Your task to perform on an android device: Clear all items from cart on amazon.com. Add "logitech g pro" to the cart on amazon.com Image 0: 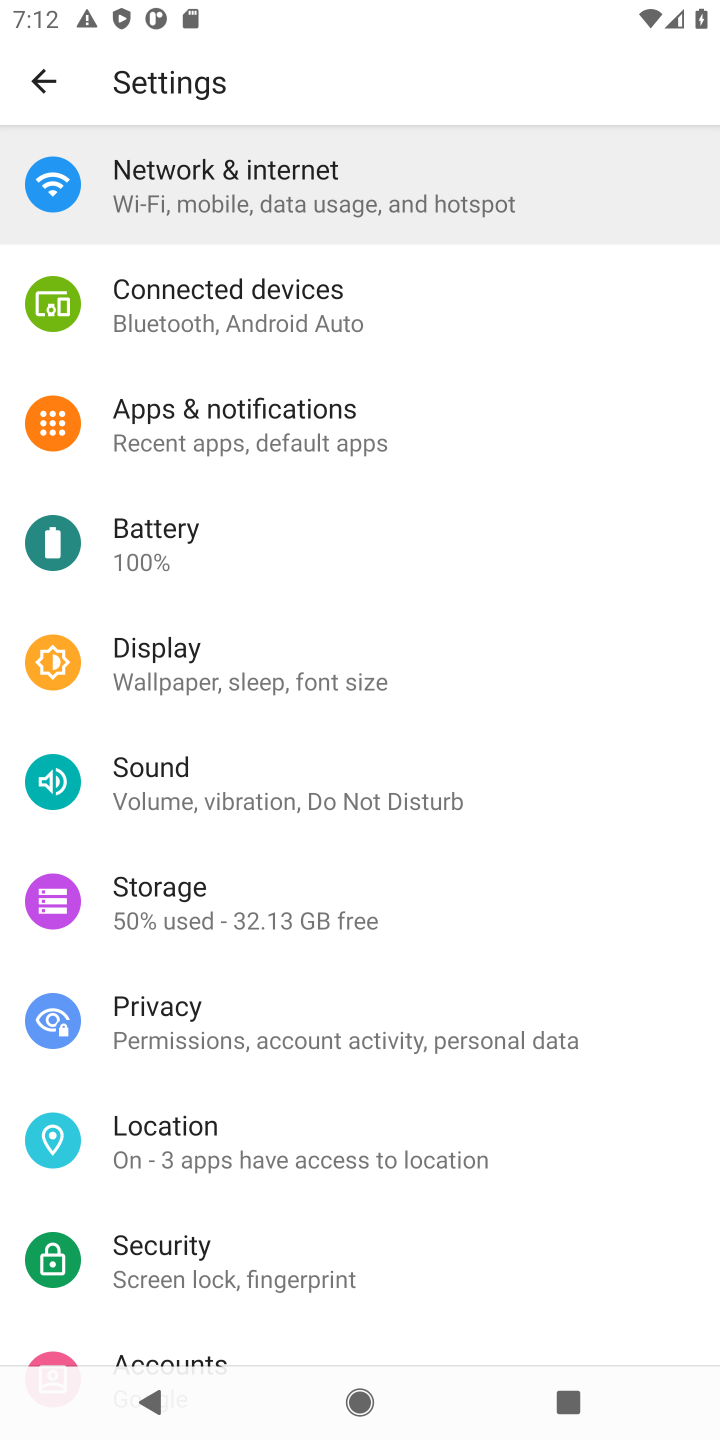
Step 0: press home button
Your task to perform on an android device: Clear all items from cart on amazon.com. Add "logitech g pro" to the cart on amazon.com Image 1: 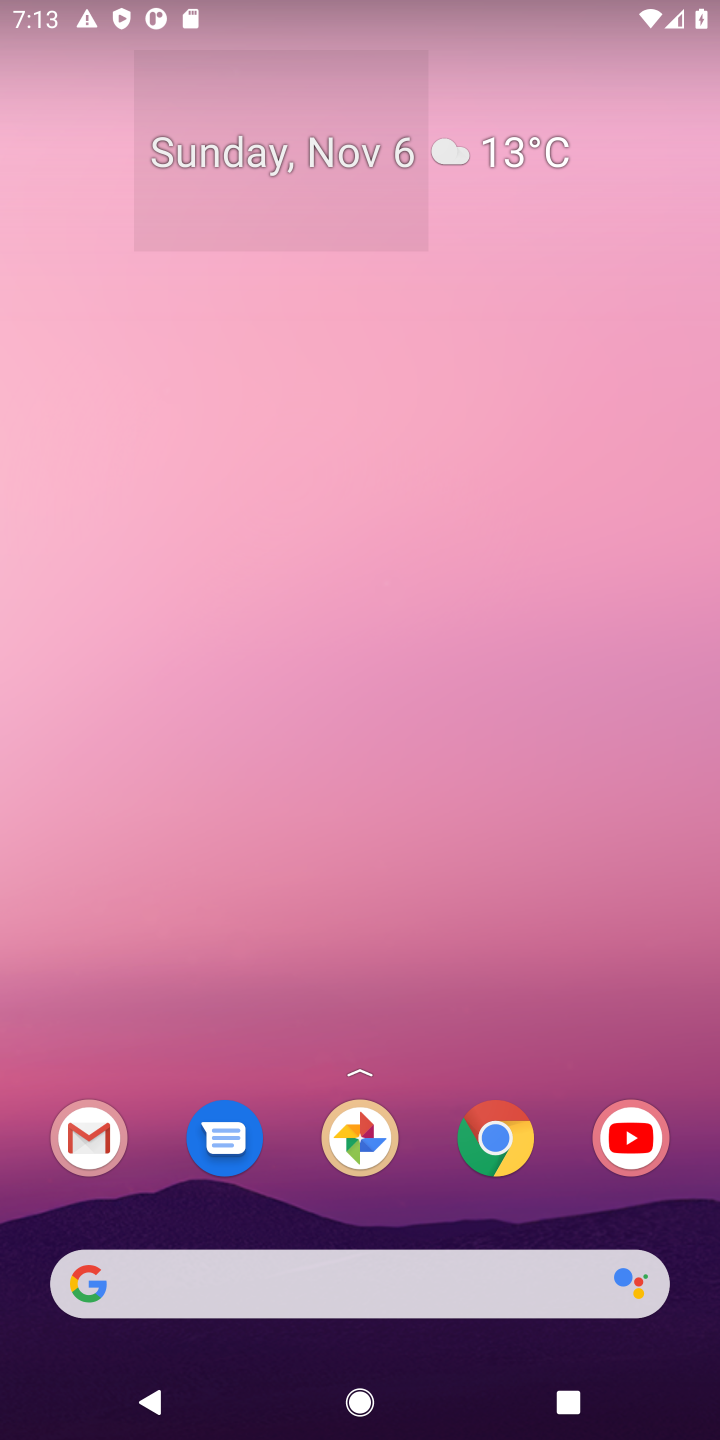
Step 1: click (492, 1135)
Your task to perform on an android device: Clear all items from cart on amazon.com. Add "logitech g pro" to the cart on amazon.com Image 2: 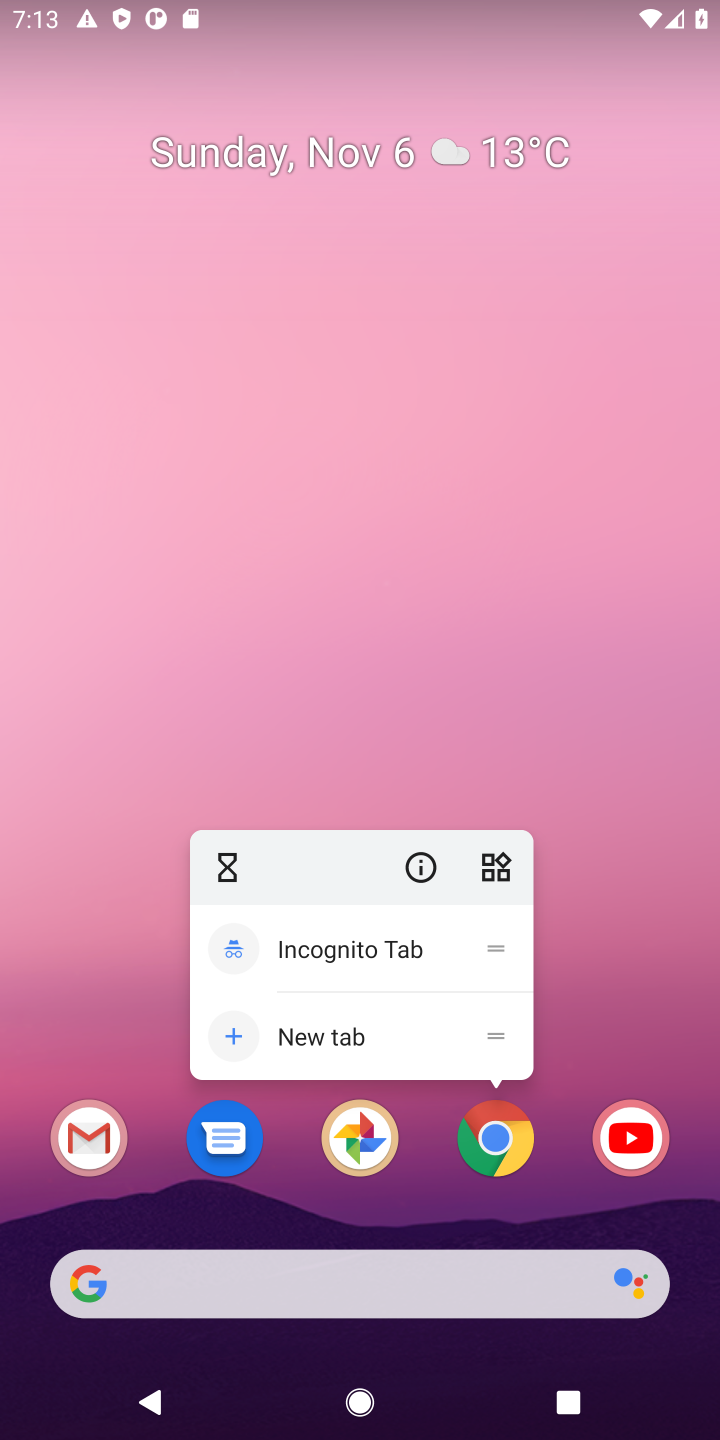
Step 2: click (492, 1144)
Your task to perform on an android device: Clear all items from cart on amazon.com. Add "logitech g pro" to the cart on amazon.com Image 3: 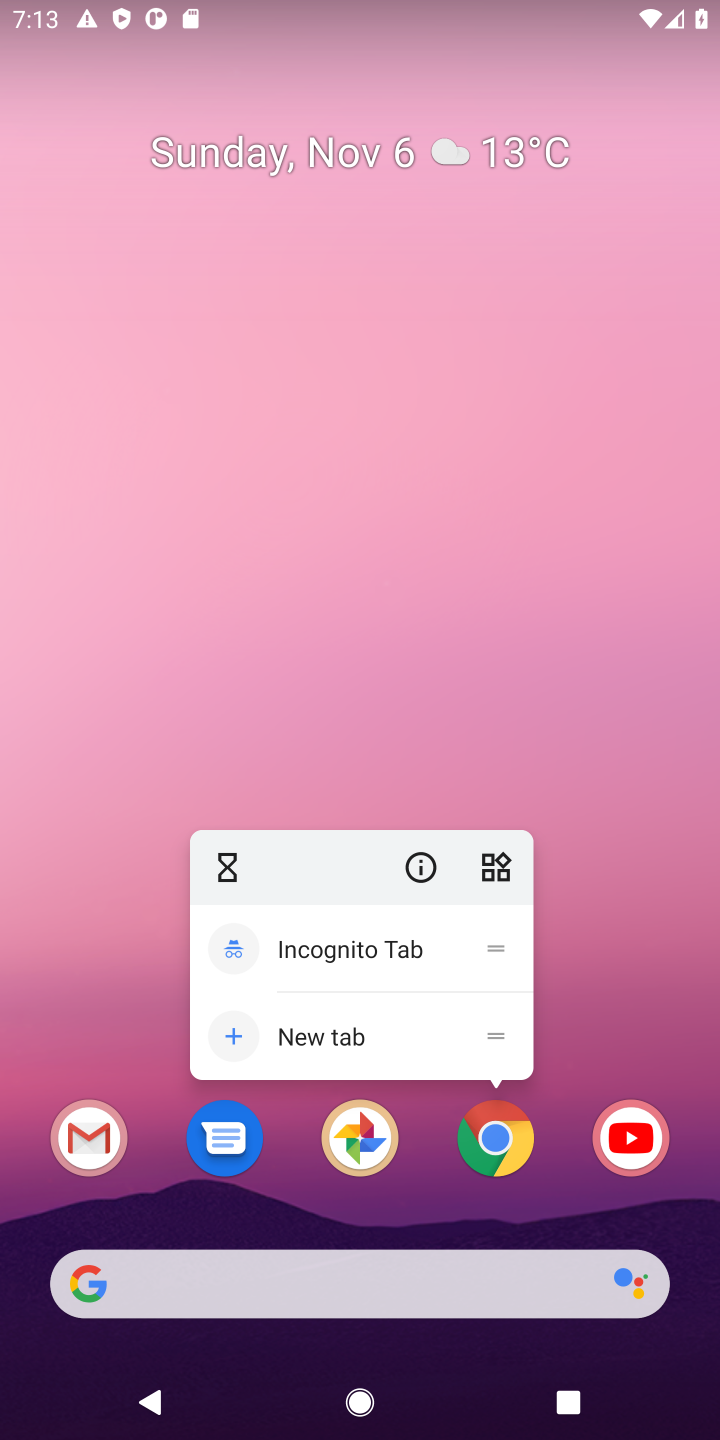
Step 3: click (517, 1142)
Your task to perform on an android device: Clear all items from cart on amazon.com. Add "logitech g pro" to the cart on amazon.com Image 4: 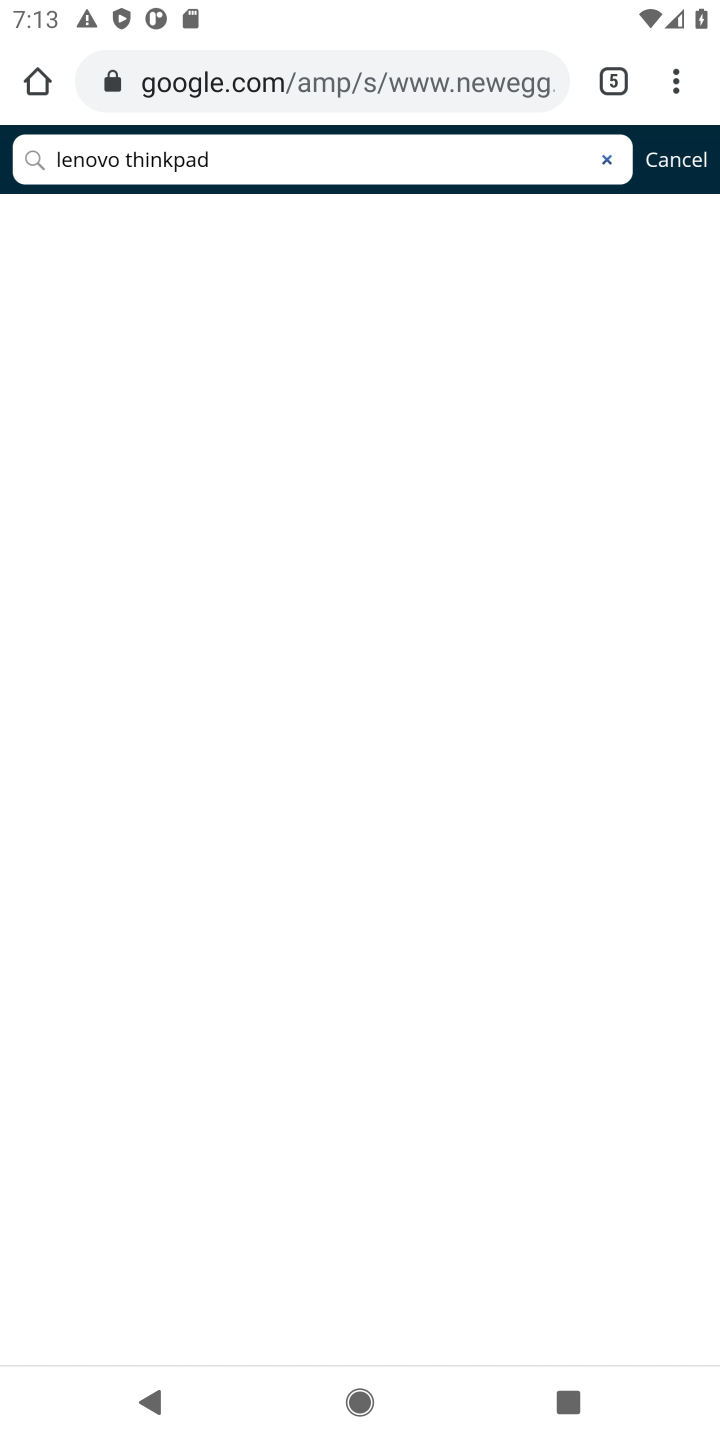
Step 4: click (608, 90)
Your task to perform on an android device: Clear all items from cart on amazon.com. Add "logitech g pro" to the cart on amazon.com Image 5: 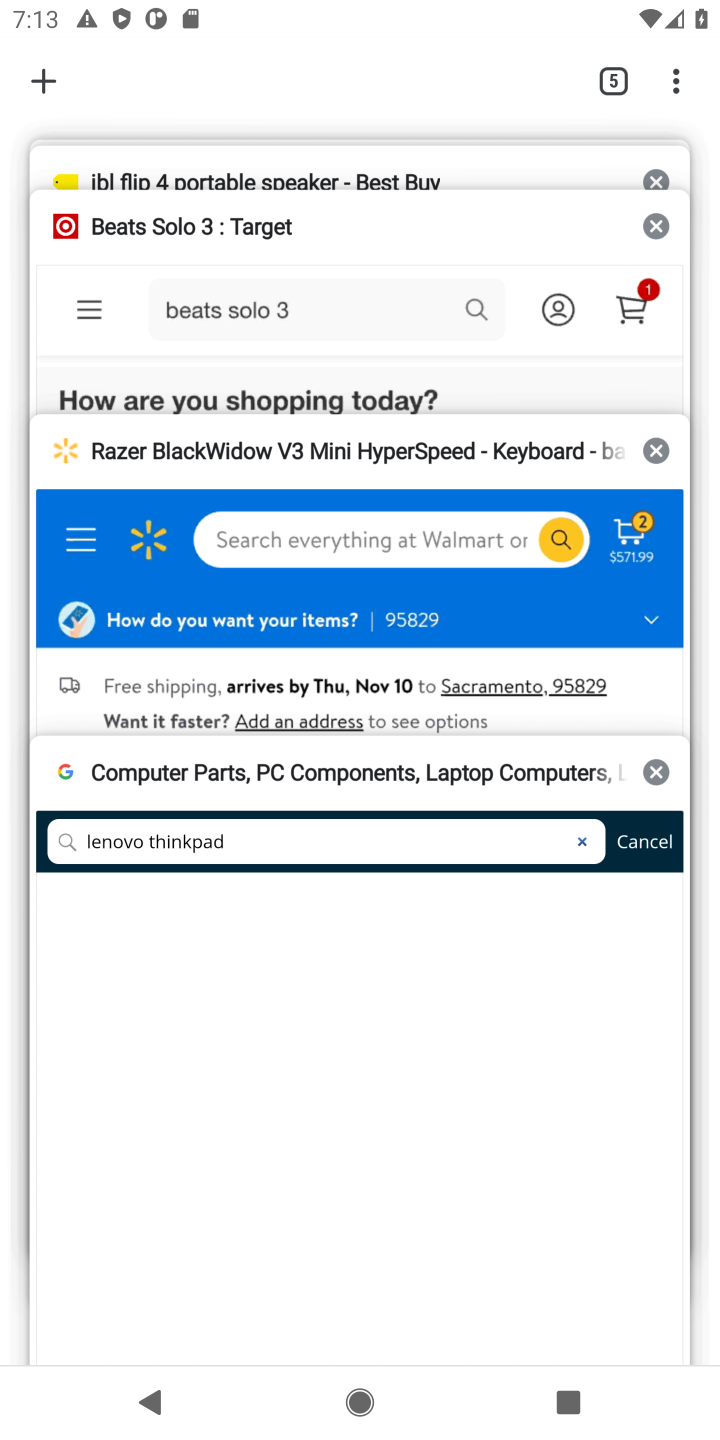
Step 5: click (41, 78)
Your task to perform on an android device: Clear all items from cart on amazon.com. Add "logitech g pro" to the cart on amazon.com Image 6: 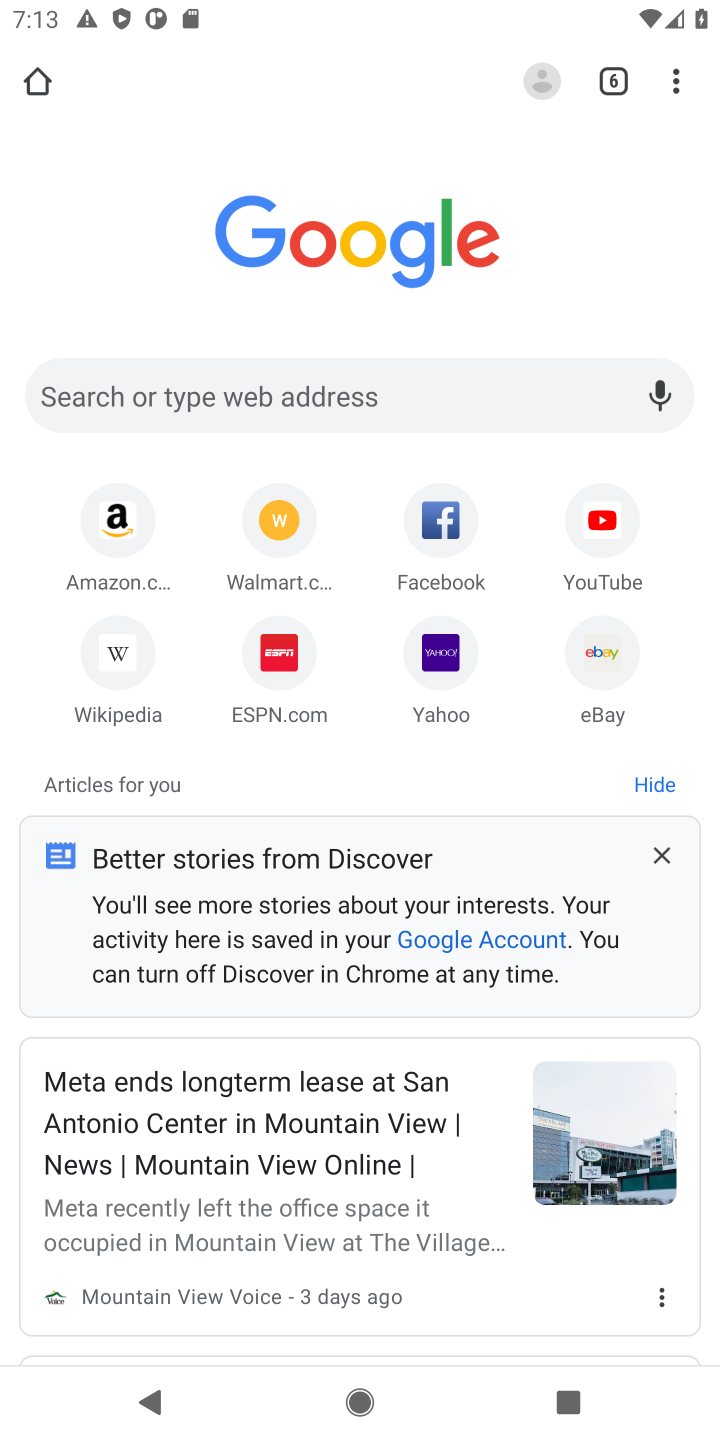
Step 6: click (224, 386)
Your task to perform on an android device: Clear all items from cart on amazon.com. Add "logitech g pro" to the cart on amazon.com Image 7: 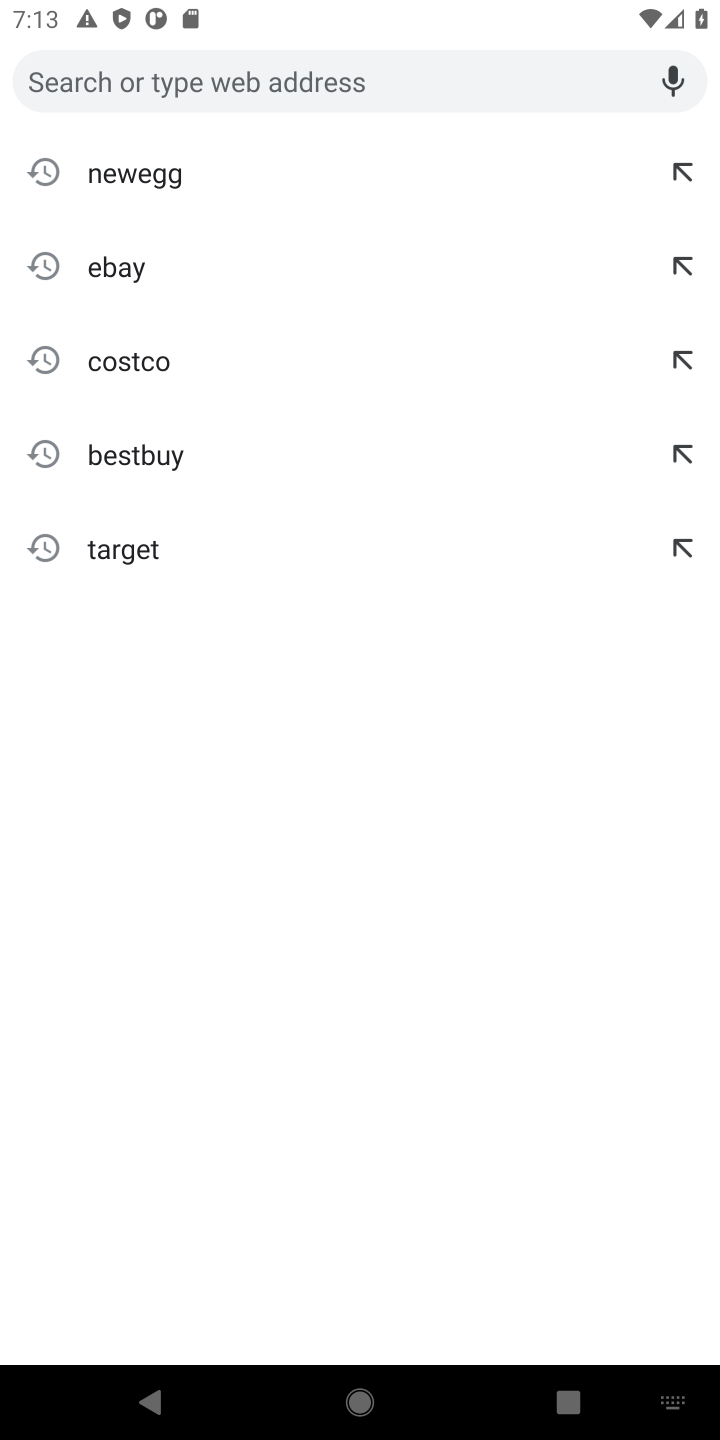
Step 7: type "amazon"
Your task to perform on an android device: Clear all items from cart on amazon.com. Add "logitech g pro" to the cart on amazon.com Image 8: 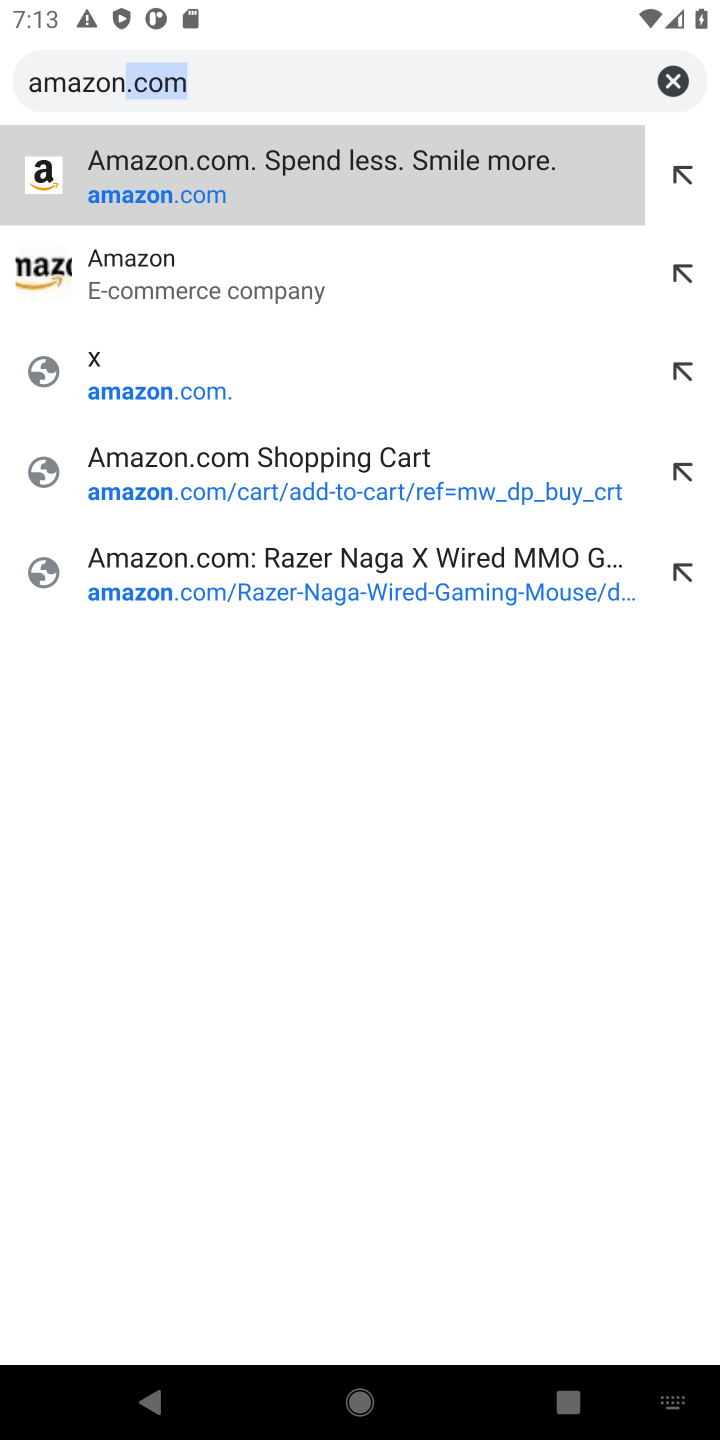
Step 8: click (324, 170)
Your task to perform on an android device: Clear all items from cart on amazon.com. Add "logitech g pro" to the cart on amazon.com Image 9: 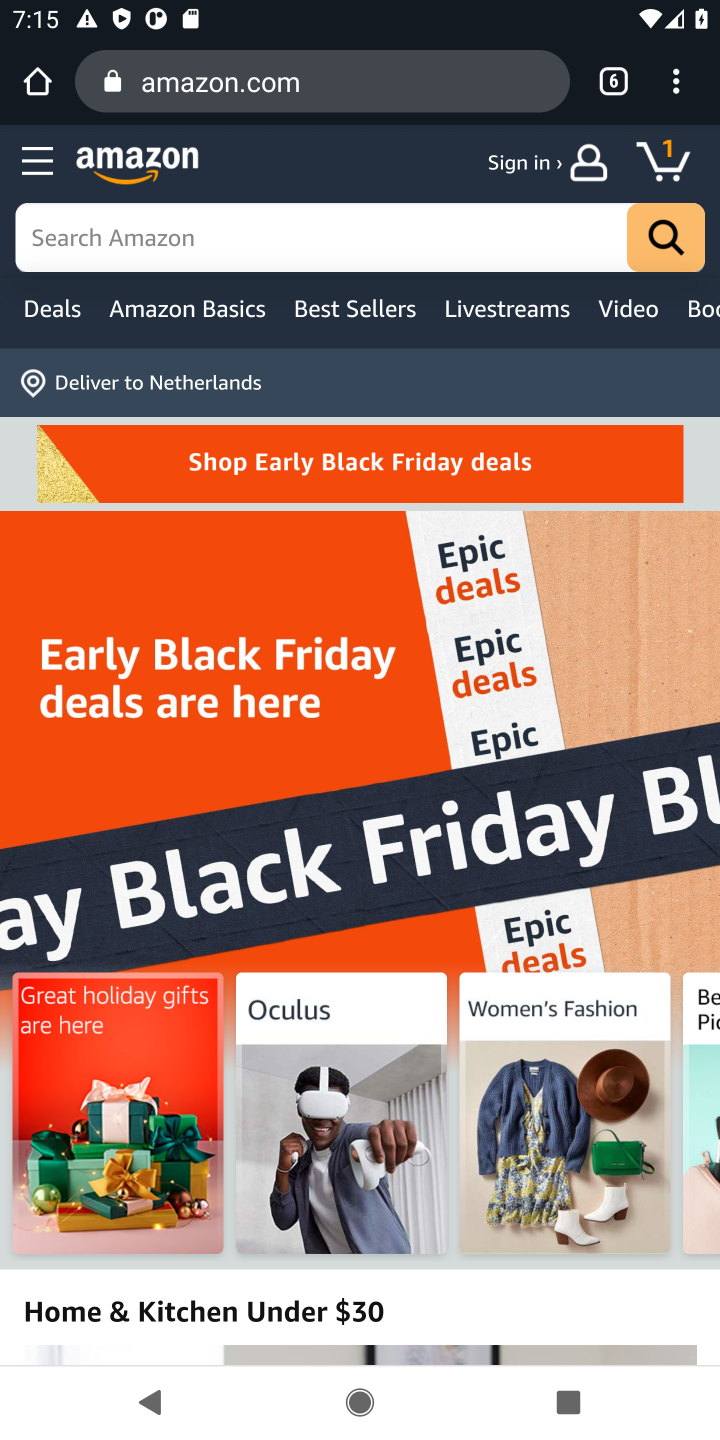
Step 9: click (277, 227)
Your task to perform on an android device: Clear all items from cart on amazon.com. Add "logitech g pro" to the cart on amazon.com Image 10: 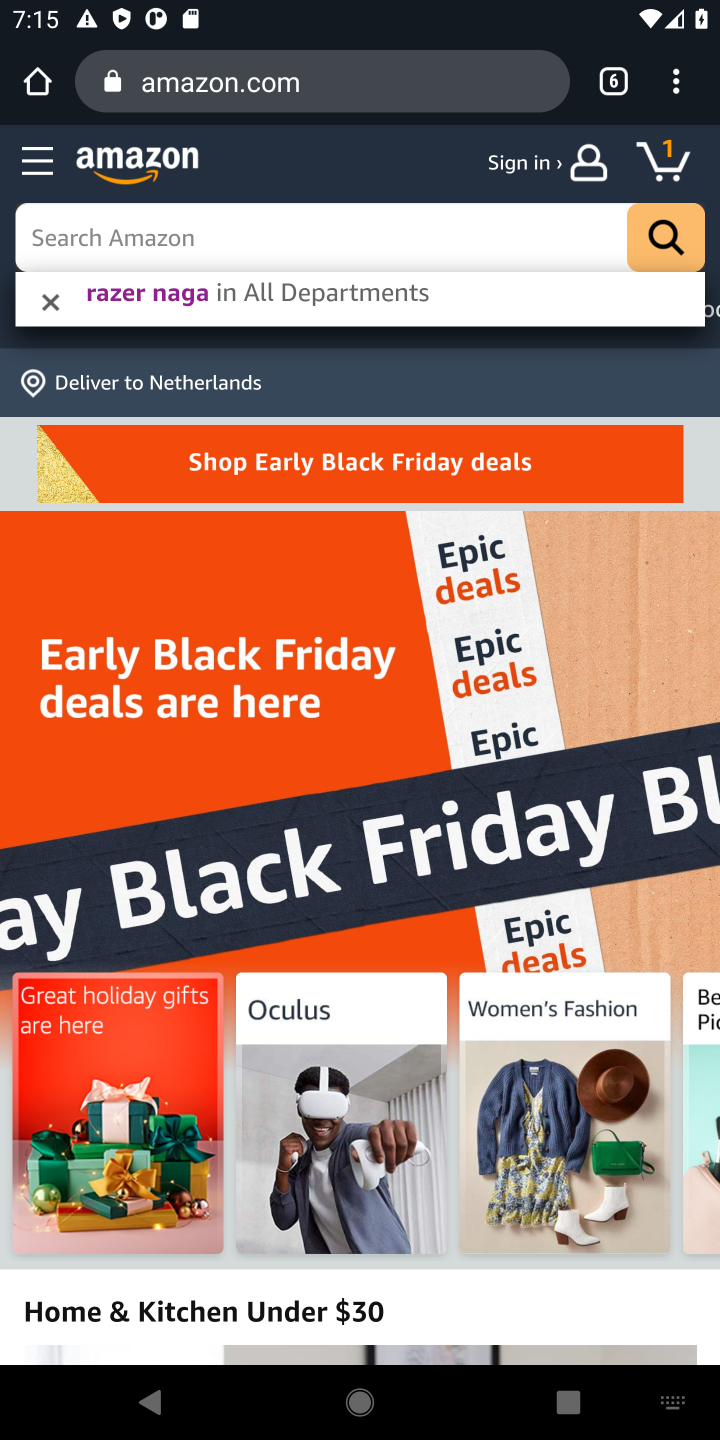
Step 10: click (200, 232)
Your task to perform on an android device: Clear all items from cart on amazon.com. Add "logitech g pro" to the cart on amazon.com Image 11: 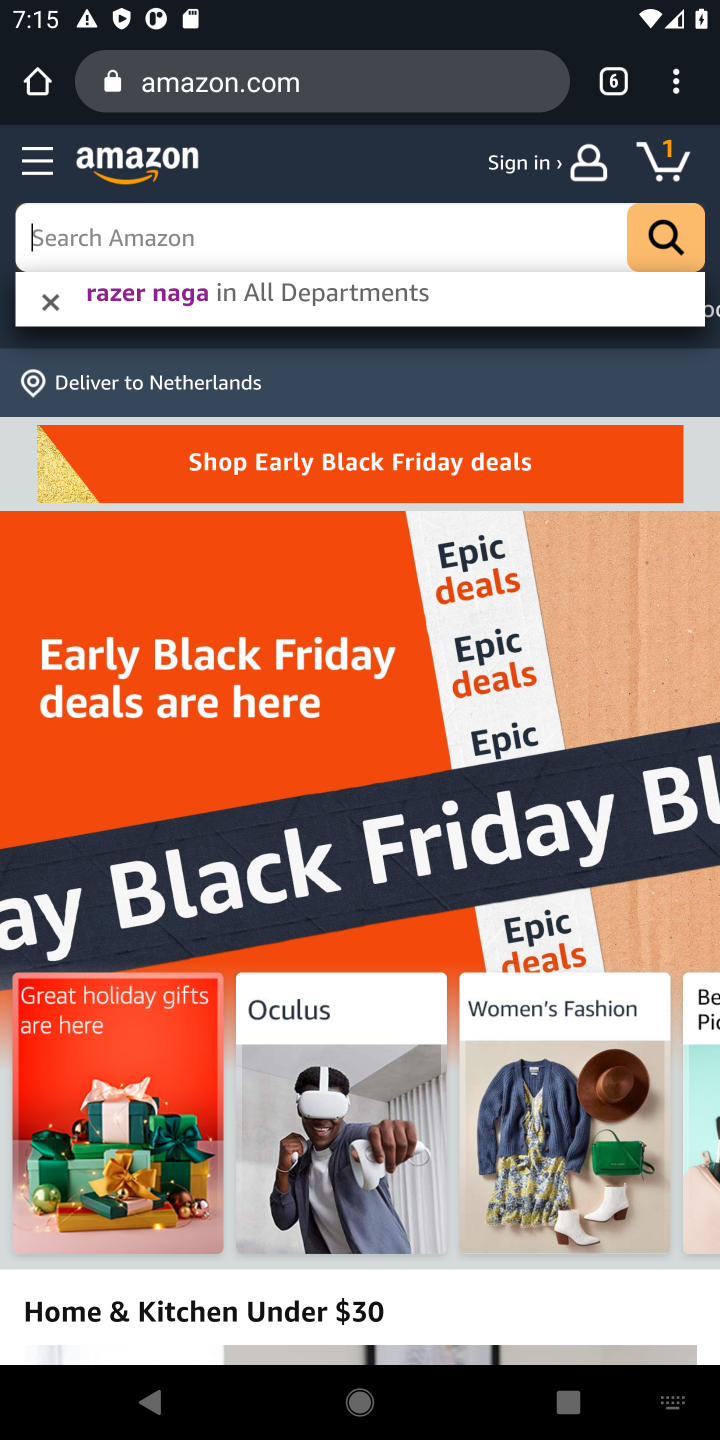
Step 11: click (200, 232)
Your task to perform on an android device: Clear all items from cart on amazon.com. Add "logitech g pro" to the cart on amazon.com Image 12: 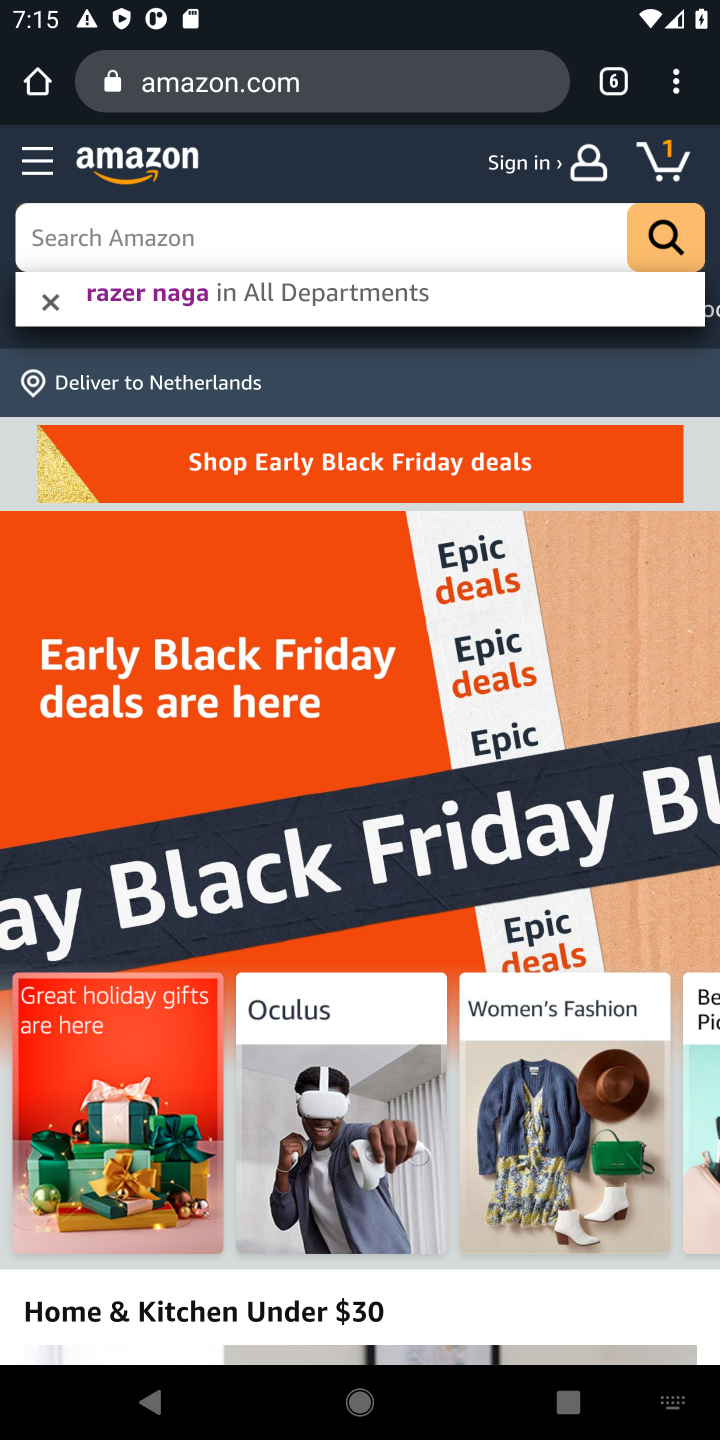
Step 12: click (305, 256)
Your task to perform on an android device: Clear all items from cart on amazon.com. Add "logitech g pro" to the cart on amazon.com Image 13: 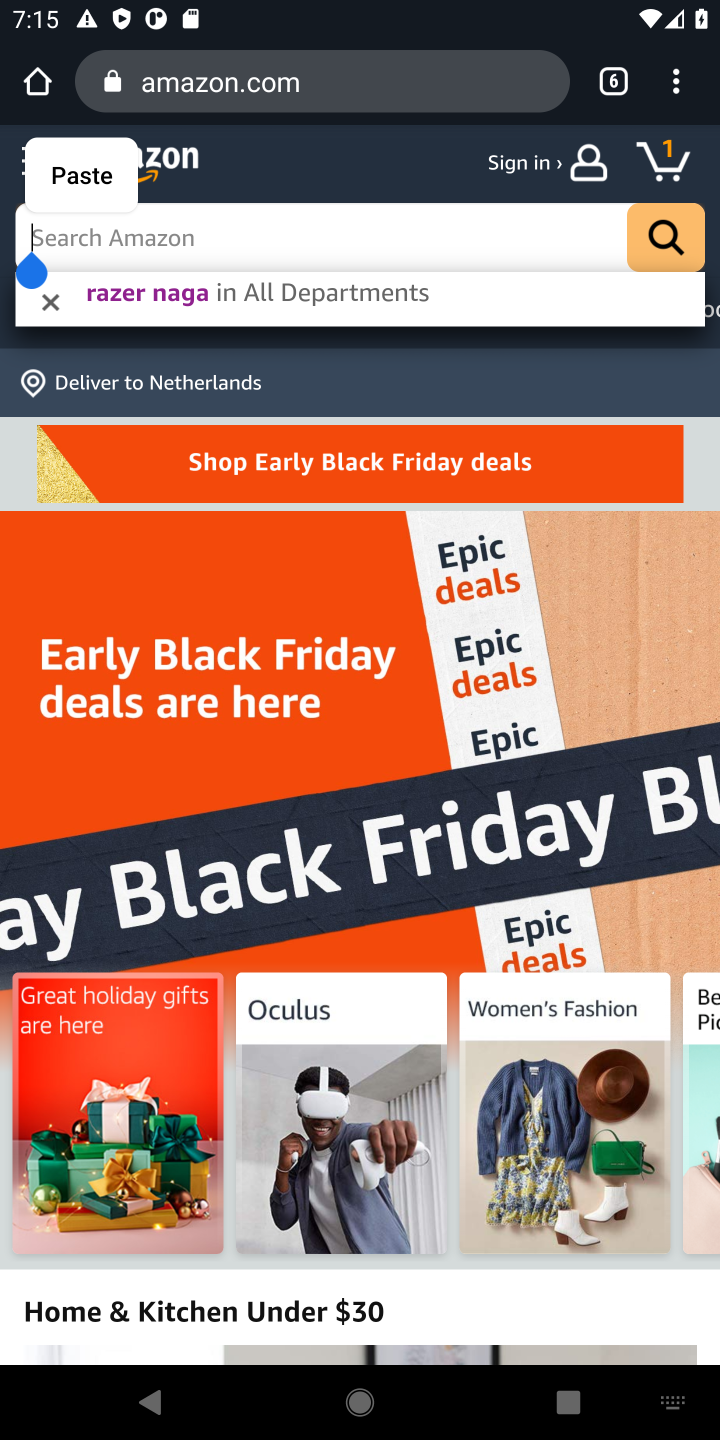
Step 13: type "logitech g pro"
Your task to perform on an android device: Clear all items from cart on amazon.com. Add "logitech g pro" to the cart on amazon.com Image 14: 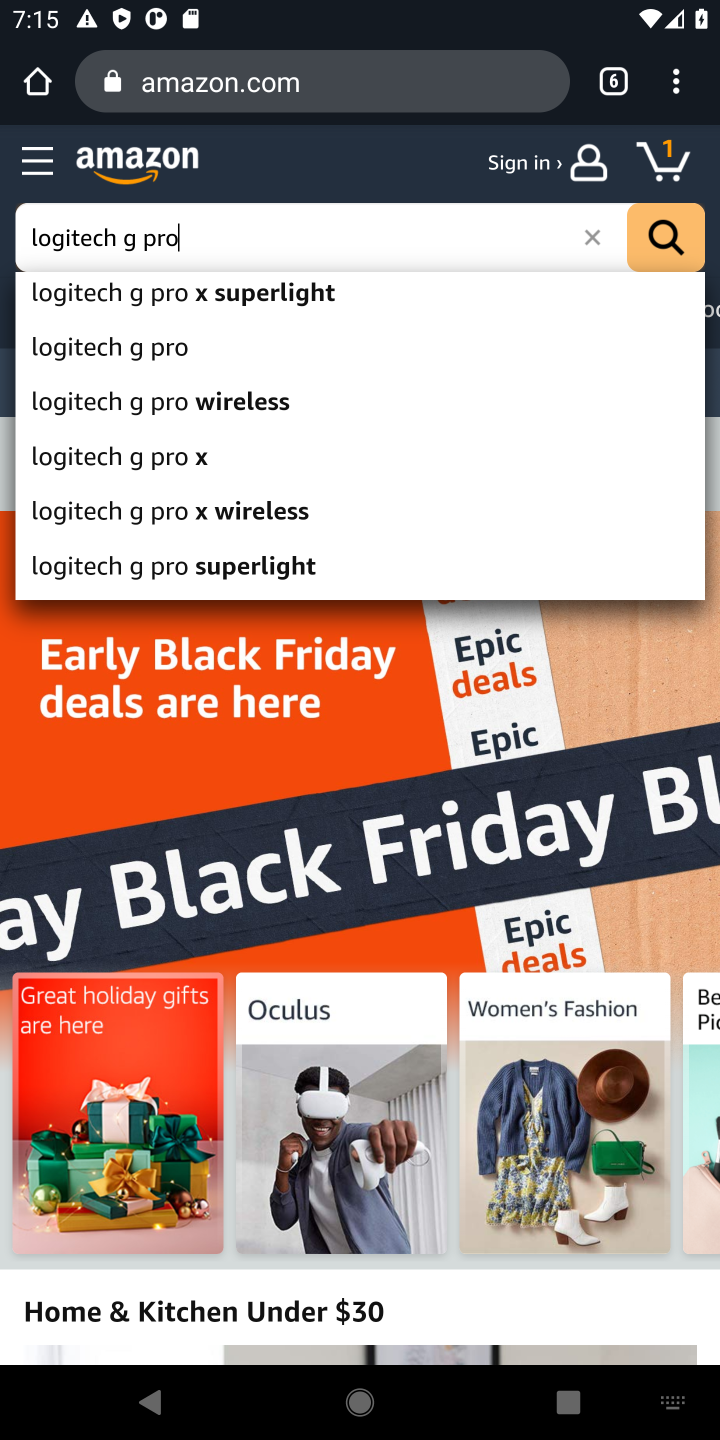
Step 14: click (122, 335)
Your task to perform on an android device: Clear all items from cart on amazon.com. Add "logitech g pro" to the cart on amazon.com Image 15: 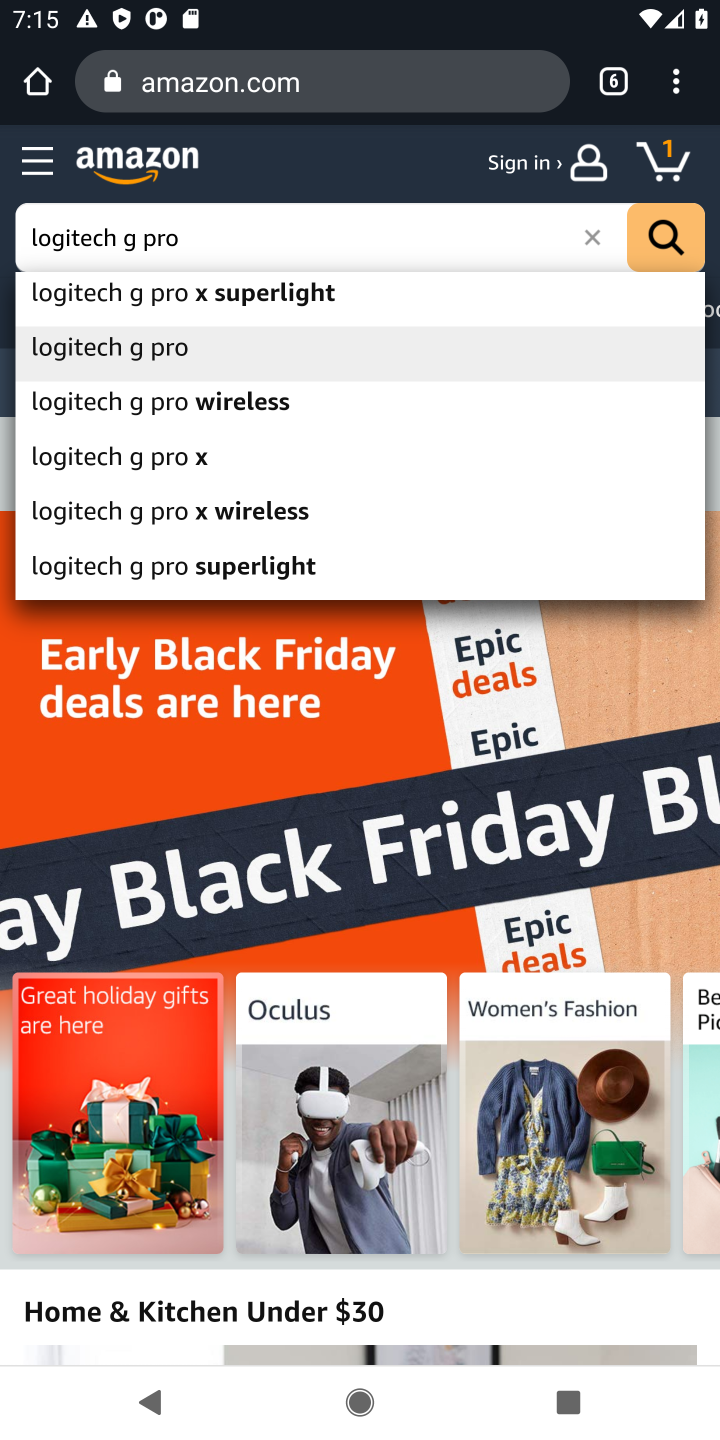
Step 15: click (241, 357)
Your task to perform on an android device: Clear all items from cart on amazon.com. Add "logitech g pro" to the cart on amazon.com Image 16: 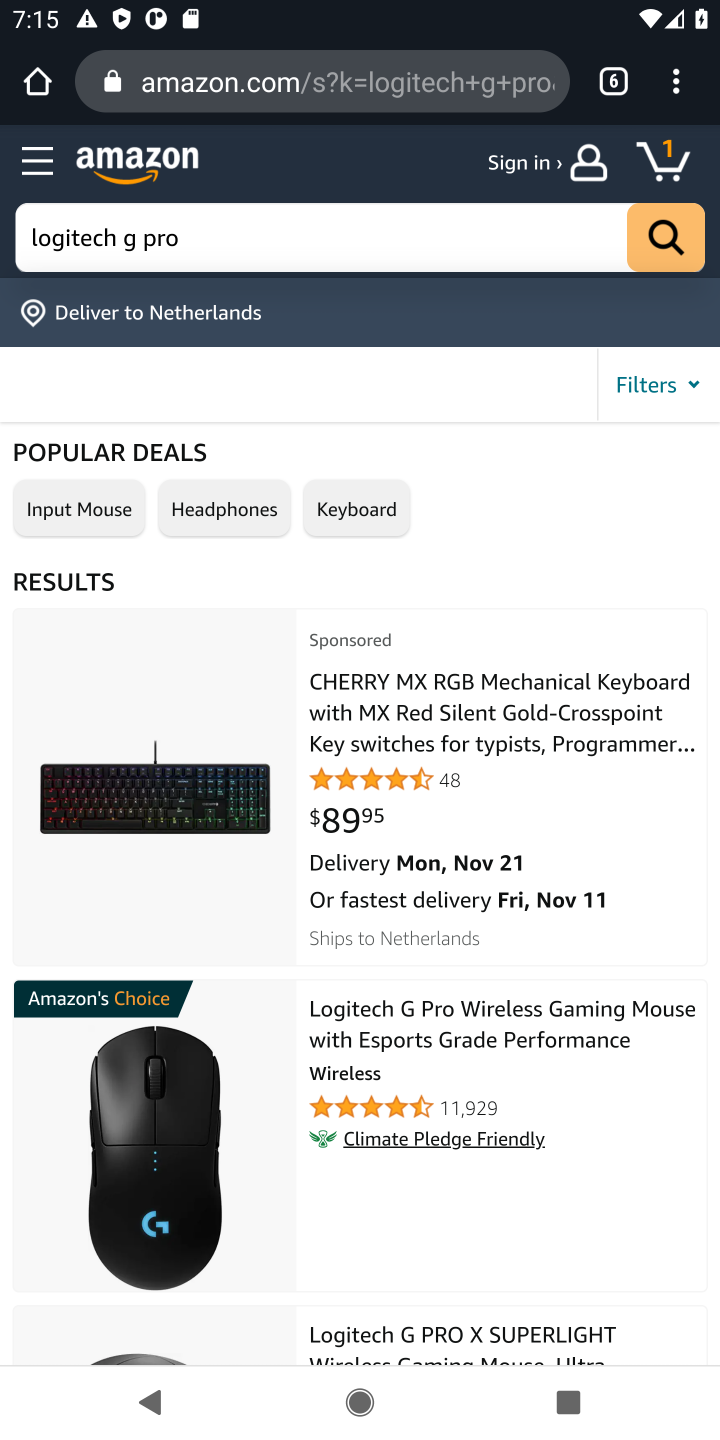
Step 16: click (252, 1024)
Your task to perform on an android device: Clear all items from cart on amazon.com. Add "logitech g pro" to the cart on amazon.com Image 17: 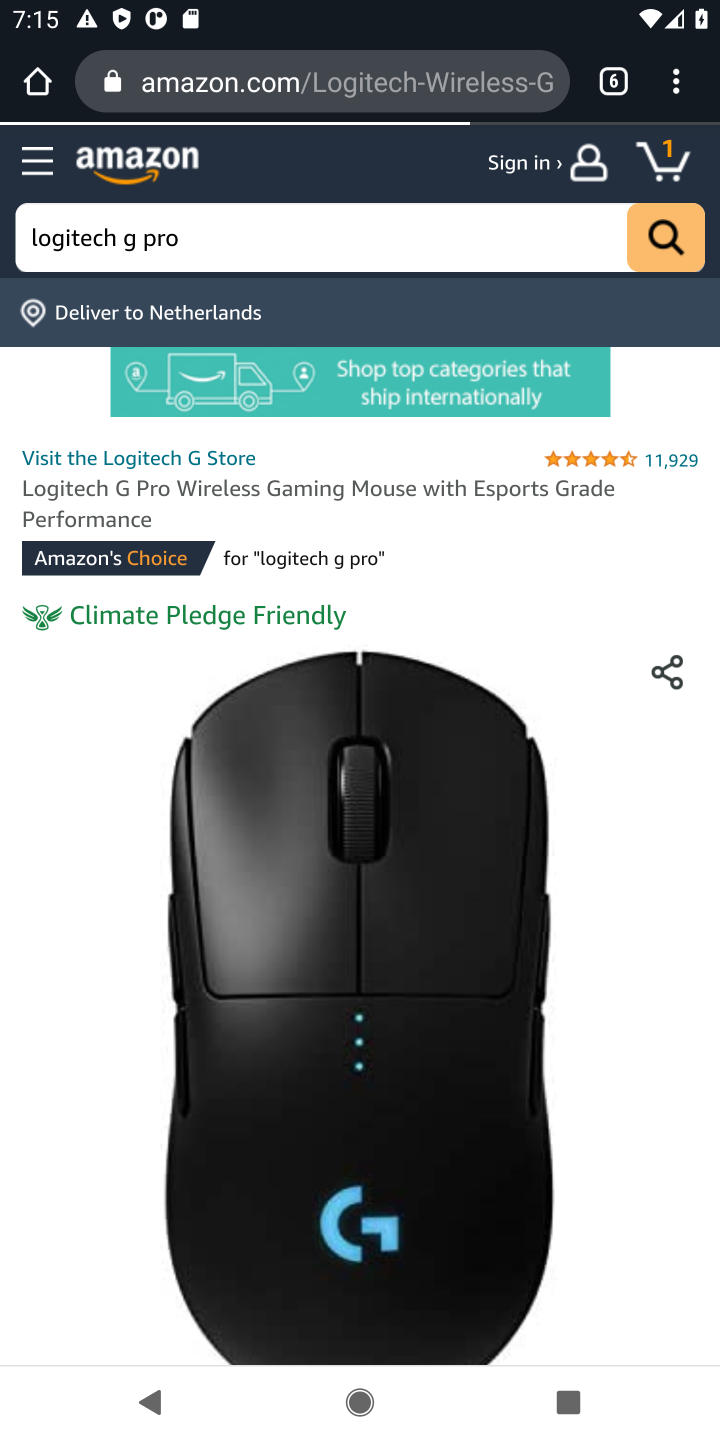
Step 17: task complete